Your task to perform on an android device: set the stopwatch Image 0: 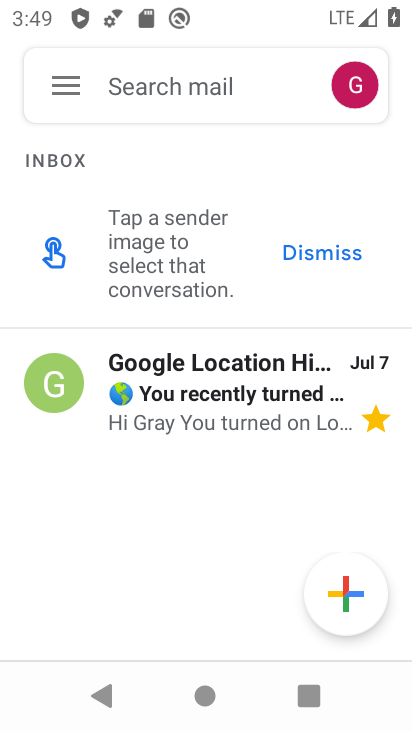
Step 0: press home button
Your task to perform on an android device: set the stopwatch Image 1: 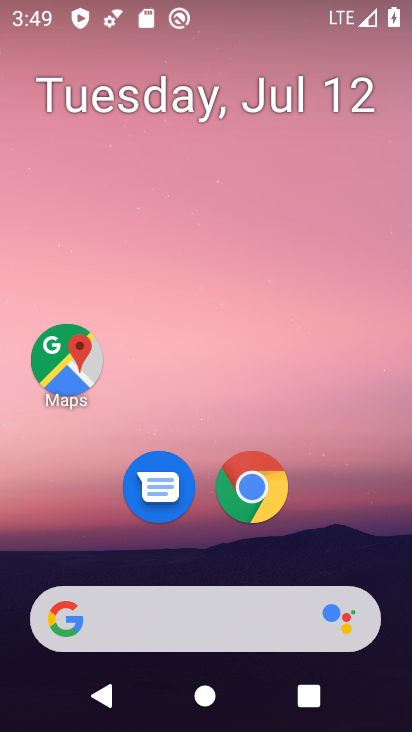
Step 1: drag from (220, 646) to (234, 47)
Your task to perform on an android device: set the stopwatch Image 2: 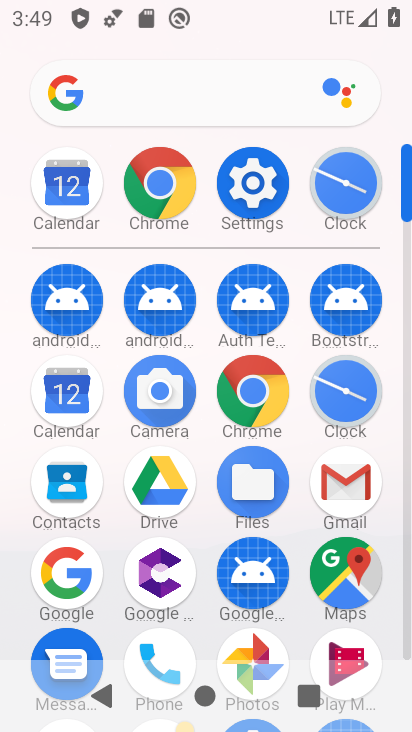
Step 2: click (337, 416)
Your task to perform on an android device: set the stopwatch Image 3: 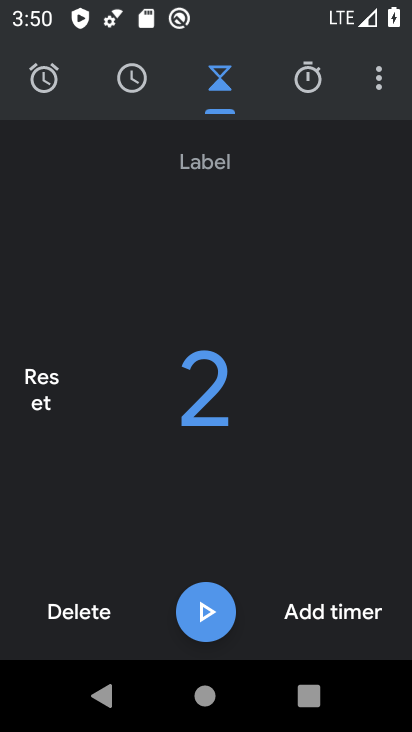
Step 3: click (307, 83)
Your task to perform on an android device: set the stopwatch Image 4: 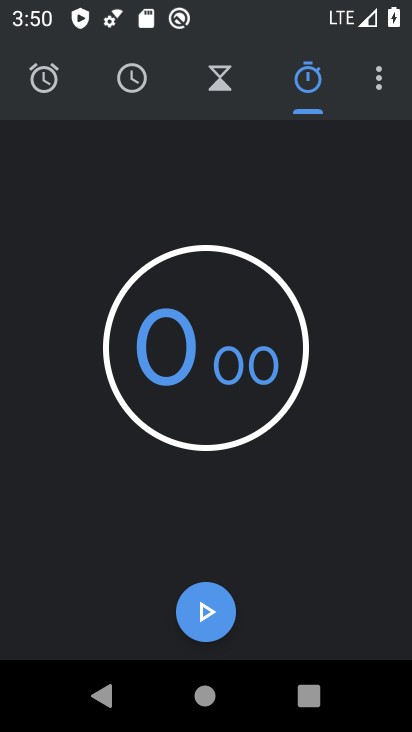
Step 4: click (200, 627)
Your task to perform on an android device: set the stopwatch Image 5: 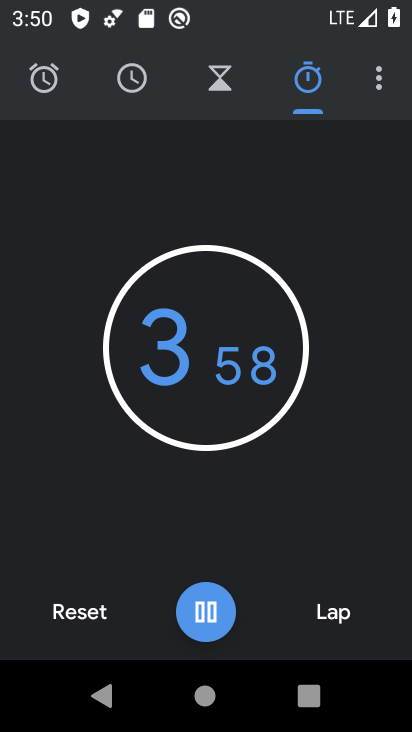
Step 5: task complete